Your task to perform on an android device: change the clock display to analog Image 0: 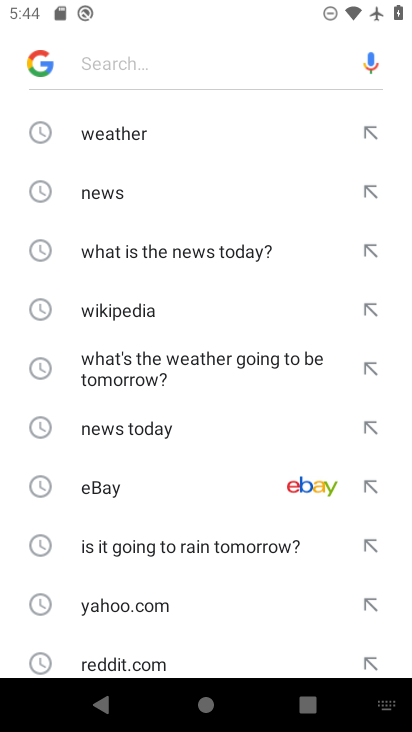
Step 0: press home button
Your task to perform on an android device: change the clock display to analog Image 1: 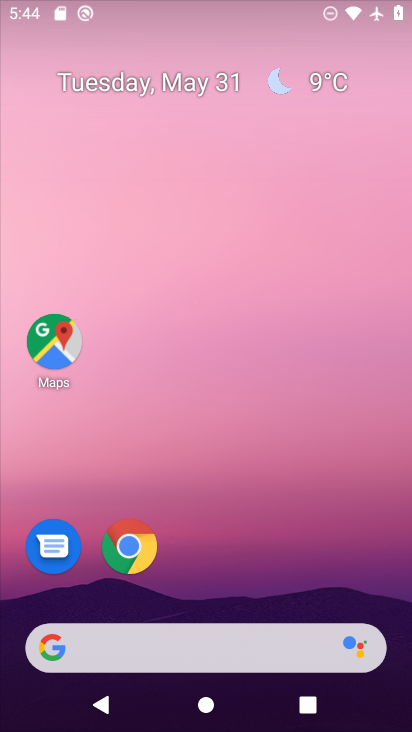
Step 1: drag from (278, 429) to (188, 38)
Your task to perform on an android device: change the clock display to analog Image 2: 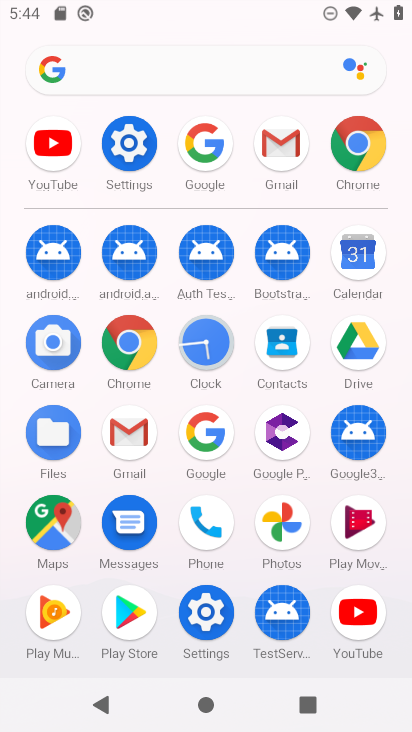
Step 2: click (219, 341)
Your task to perform on an android device: change the clock display to analog Image 3: 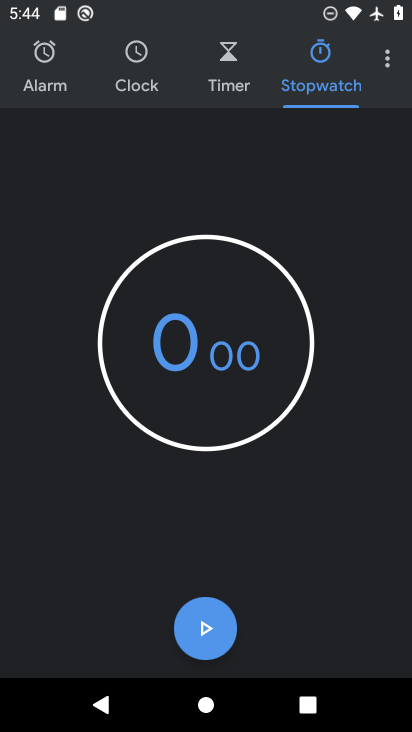
Step 3: click (387, 59)
Your task to perform on an android device: change the clock display to analog Image 4: 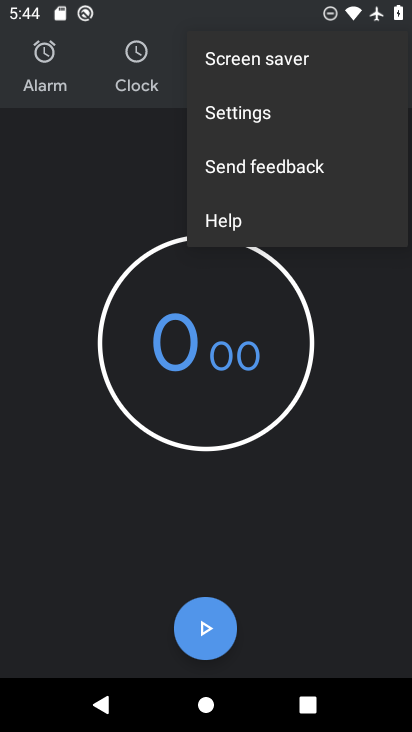
Step 4: click (272, 112)
Your task to perform on an android device: change the clock display to analog Image 5: 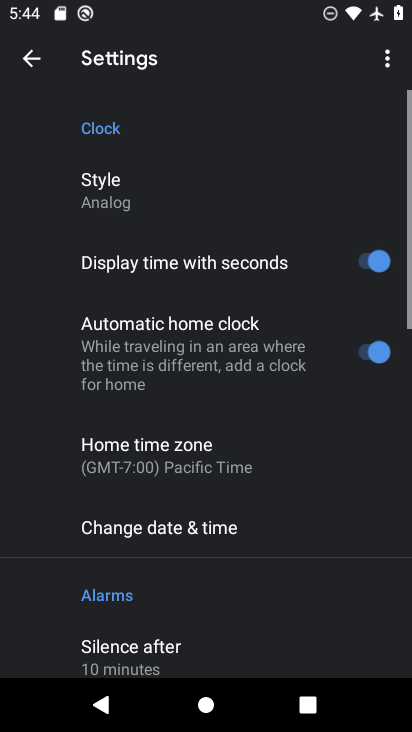
Step 5: click (111, 191)
Your task to perform on an android device: change the clock display to analog Image 6: 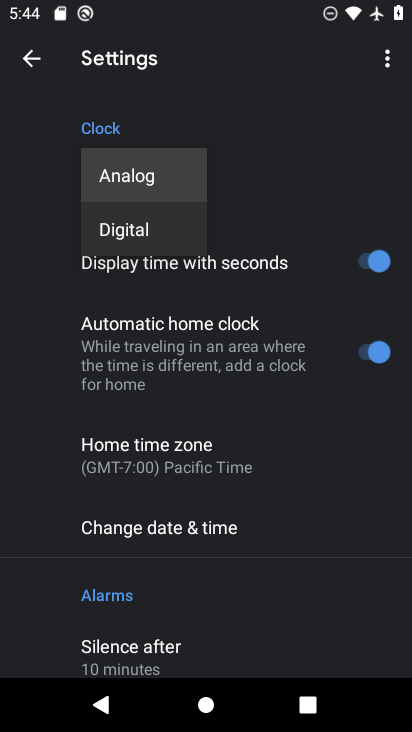
Step 6: task complete